Your task to perform on an android device: Go to Reddit.com Image 0: 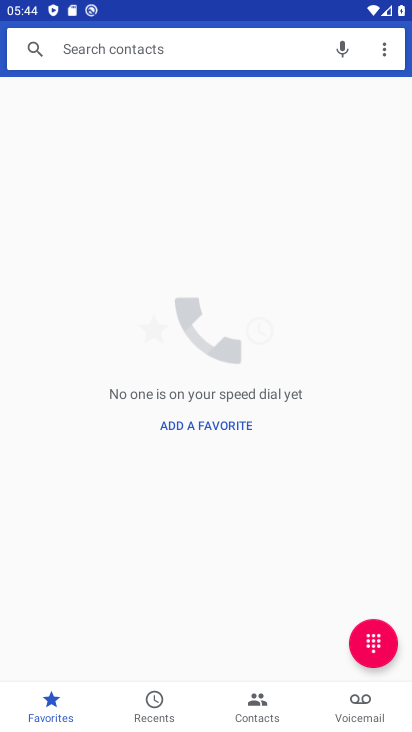
Step 0: press home button
Your task to perform on an android device: Go to Reddit.com Image 1: 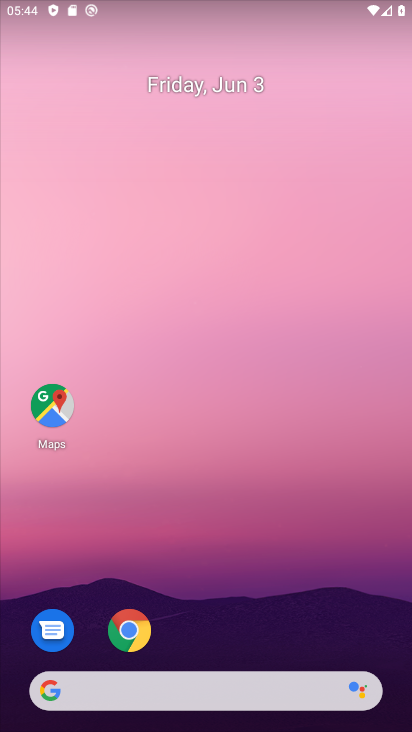
Step 1: click (126, 651)
Your task to perform on an android device: Go to Reddit.com Image 2: 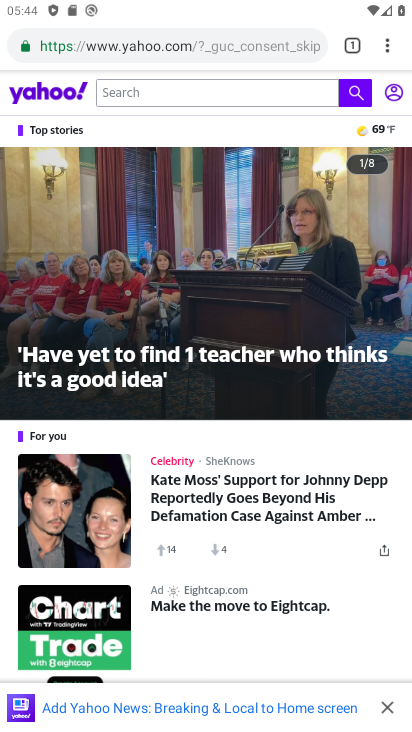
Step 2: click (192, 48)
Your task to perform on an android device: Go to Reddit.com Image 3: 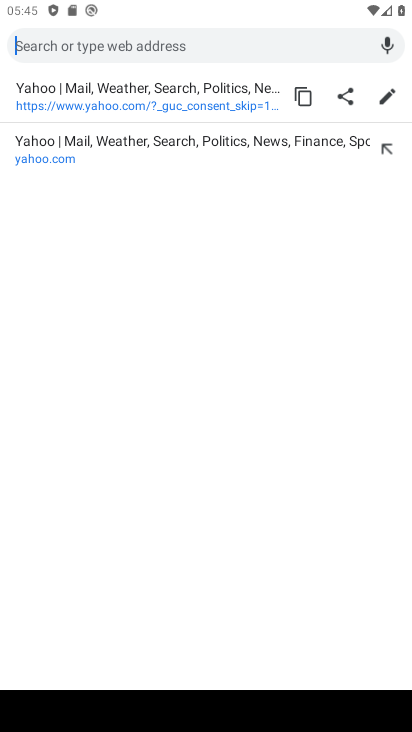
Step 3: type "reddit"
Your task to perform on an android device: Go to Reddit.com Image 4: 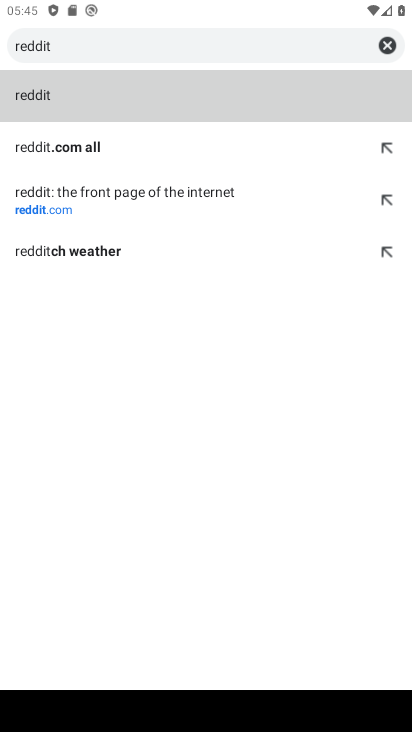
Step 4: click (173, 104)
Your task to perform on an android device: Go to Reddit.com Image 5: 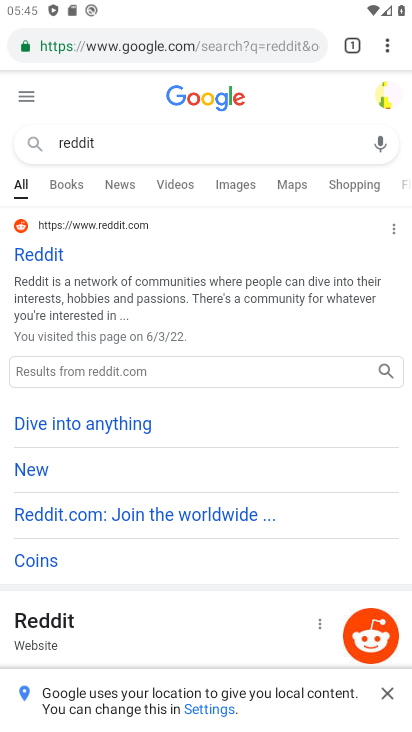
Step 5: click (43, 268)
Your task to perform on an android device: Go to Reddit.com Image 6: 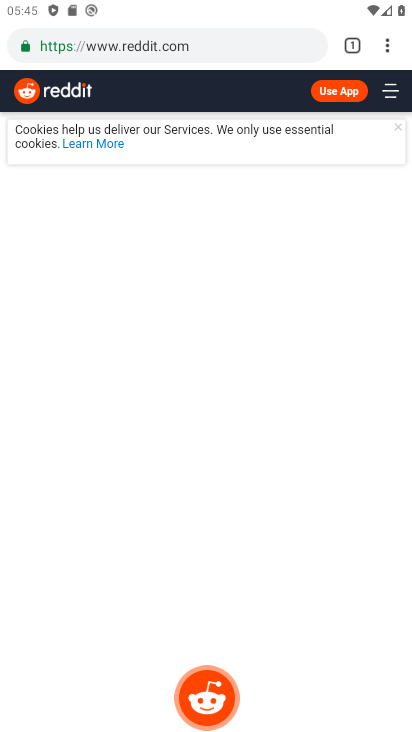
Step 6: task complete